Your task to perform on an android device: Do I have any events tomorrow? Image 0: 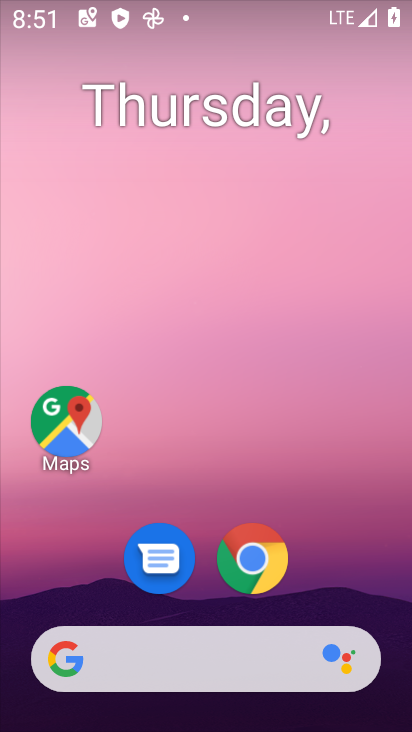
Step 0: drag from (197, 617) to (257, 177)
Your task to perform on an android device: Do I have any events tomorrow? Image 1: 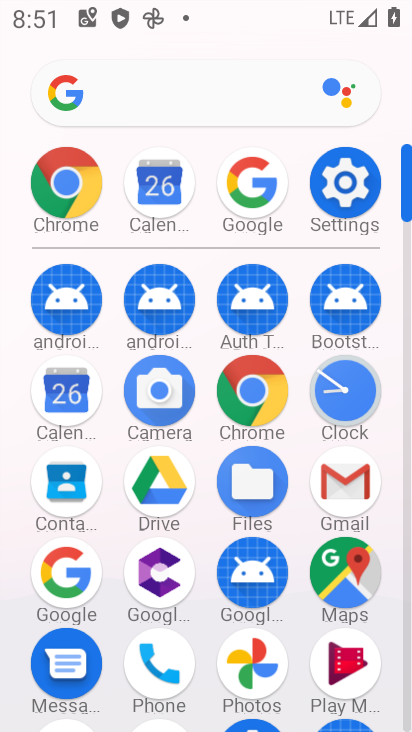
Step 1: click (246, 658)
Your task to perform on an android device: Do I have any events tomorrow? Image 2: 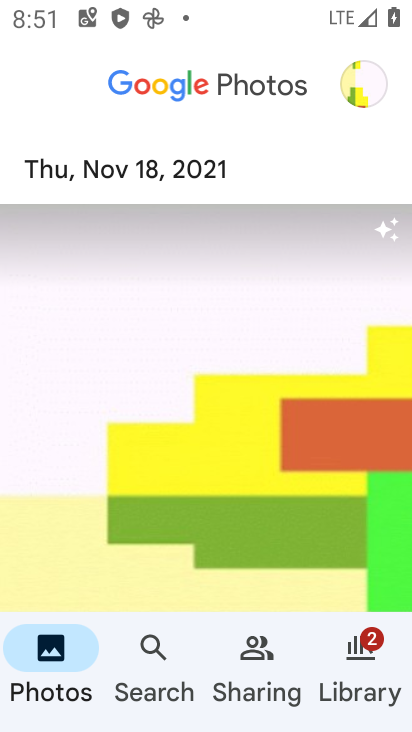
Step 2: press back button
Your task to perform on an android device: Do I have any events tomorrow? Image 3: 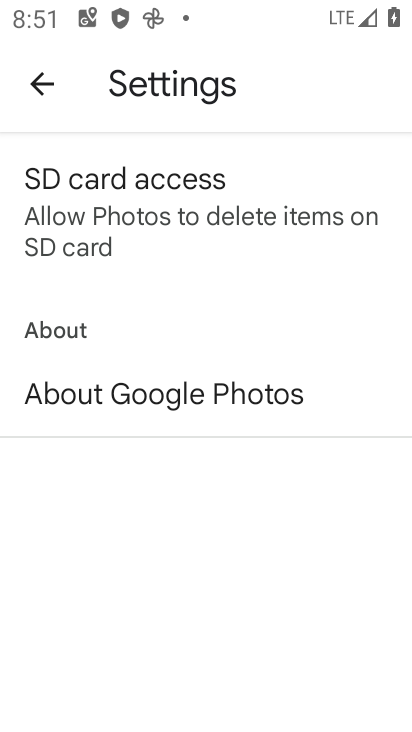
Step 3: click (44, 89)
Your task to perform on an android device: Do I have any events tomorrow? Image 4: 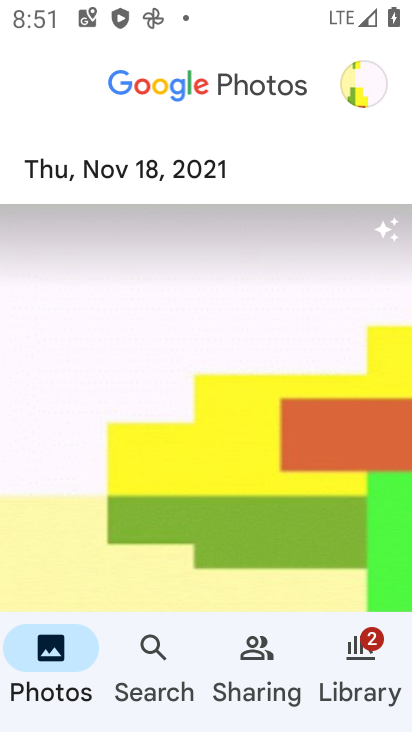
Step 4: press home button
Your task to perform on an android device: Do I have any events tomorrow? Image 5: 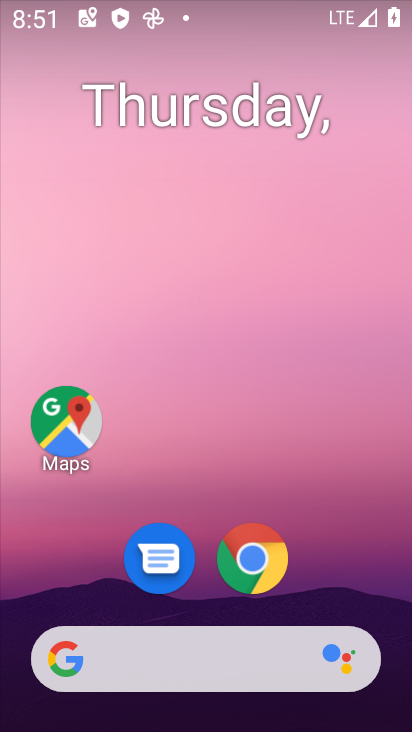
Step 5: drag from (182, 626) to (255, 18)
Your task to perform on an android device: Do I have any events tomorrow? Image 6: 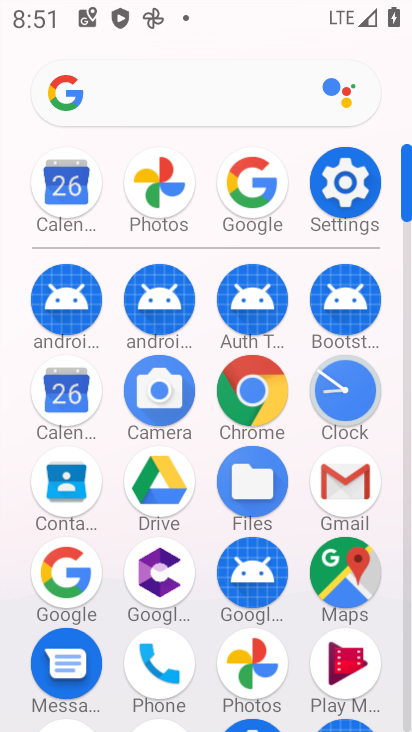
Step 6: click (57, 396)
Your task to perform on an android device: Do I have any events tomorrow? Image 7: 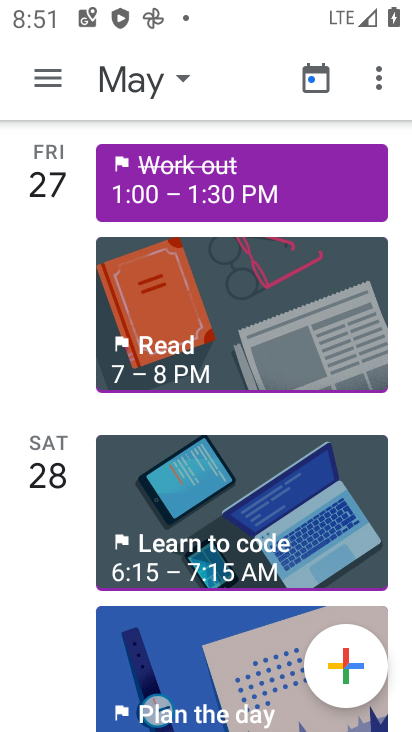
Step 7: click (133, 85)
Your task to perform on an android device: Do I have any events tomorrow? Image 8: 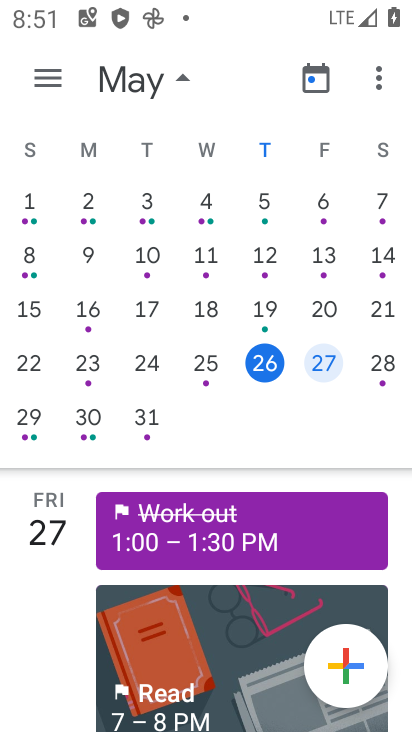
Step 8: click (326, 367)
Your task to perform on an android device: Do I have any events tomorrow? Image 9: 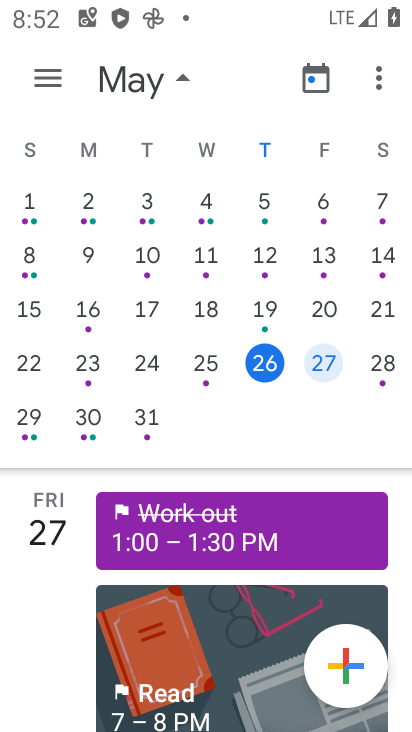
Step 9: click (319, 356)
Your task to perform on an android device: Do I have any events tomorrow? Image 10: 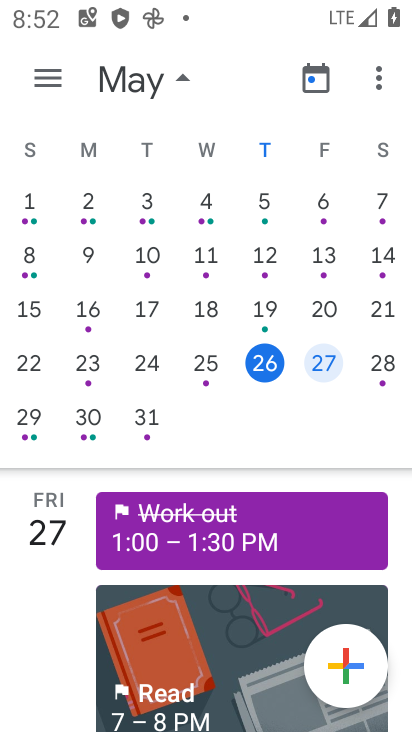
Step 10: task complete